Your task to perform on an android device: open wifi settings Image 0: 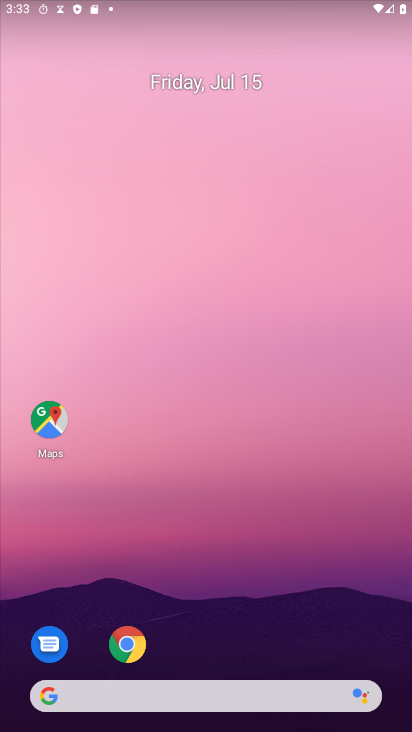
Step 0: drag from (312, 687) to (286, 4)
Your task to perform on an android device: open wifi settings Image 1: 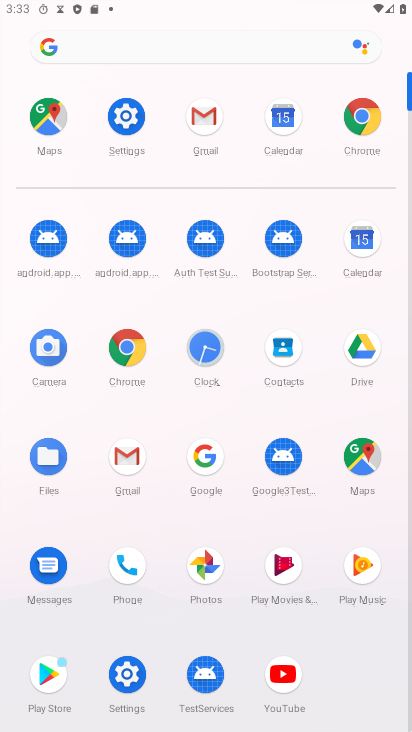
Step 1: click (136, 112)
Your task to perform on an android device: open wifi settings Image 2: 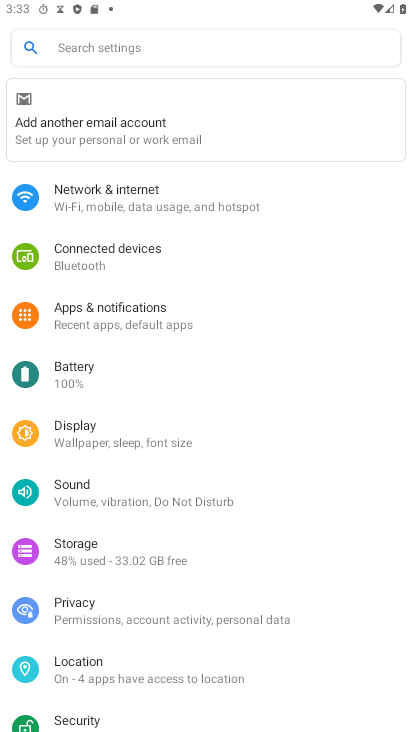
Step 2: click (181, 202)
Your task to perform on an android device: open wifi settings Image 3: 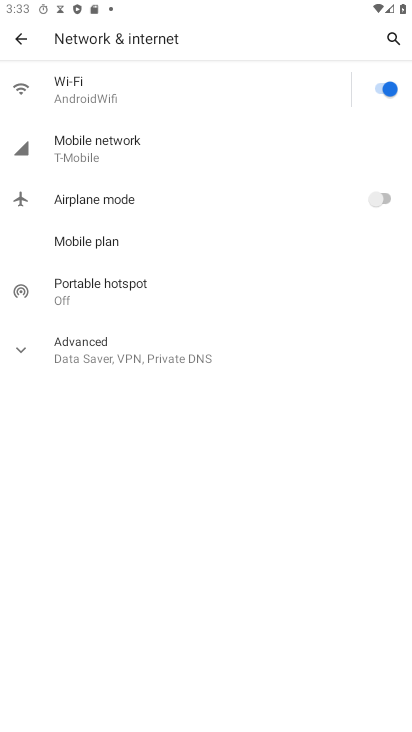
Step 3: click (103, 92)
Your task to perform on an android device: open wifi settings Image 4: 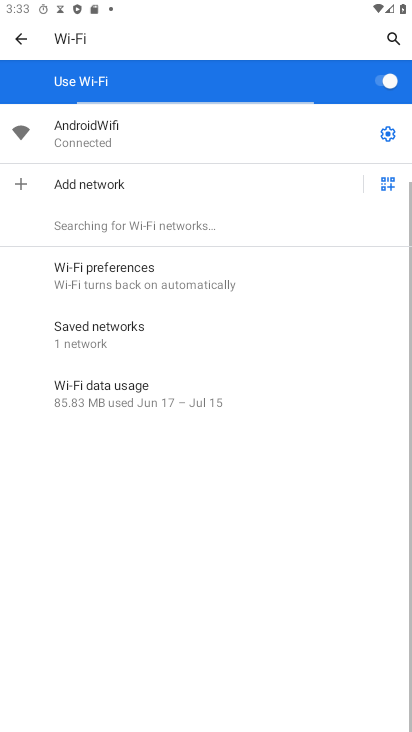
Step 4: task complete